Your task to perform on an android device: turn on data saver in the chrome app Image 0: 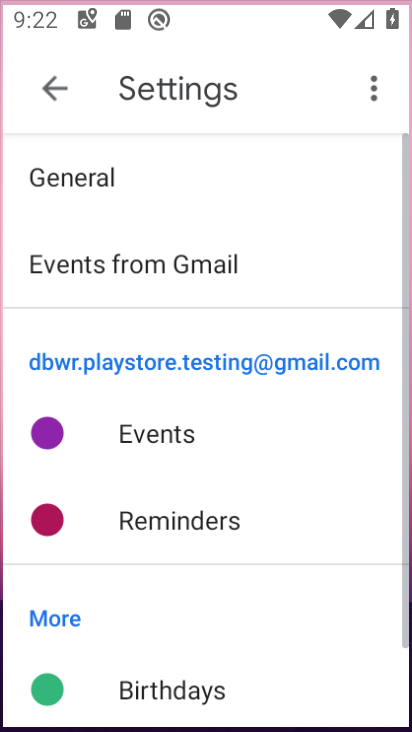
Step 0: drag from (215, 597) to (270, 221)
Your task to perform on an android device: turn on data saver in the chrome app Image 1: 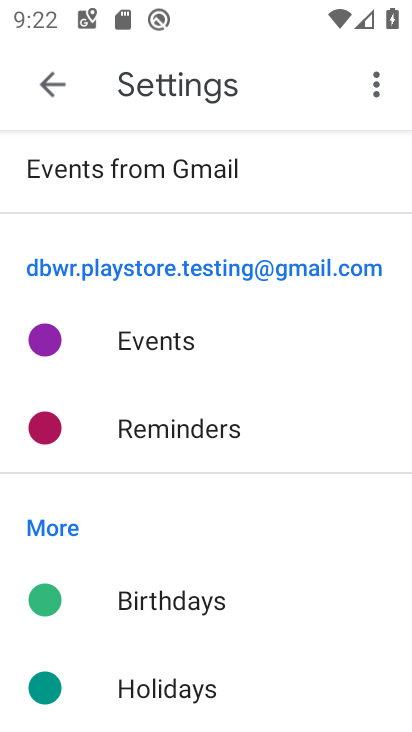
Step 1: press home button
Your task to perform on an android device: turn on data saver in the chrome app Image 2: 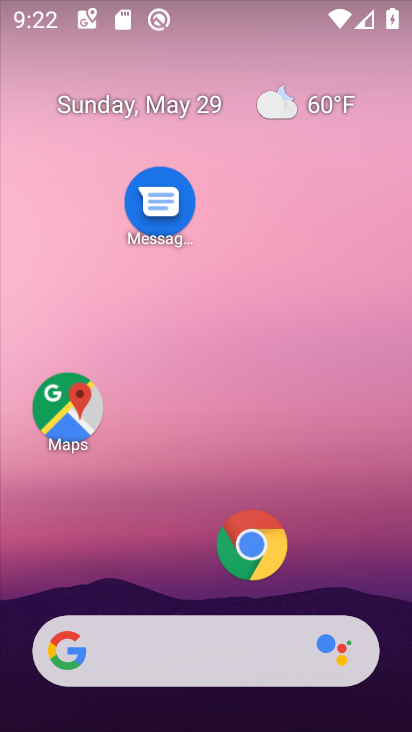
Step 2: click (245, 547)
Your task to perform on an android device: turn on data saver in the chrome app Image 3: 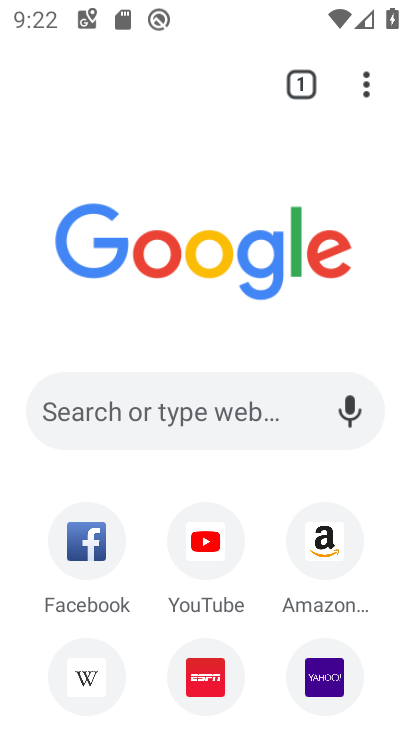
Step 3: click (368, 81)
Your task to perform on an android device: turn on data saver in the chrome app Image 4: 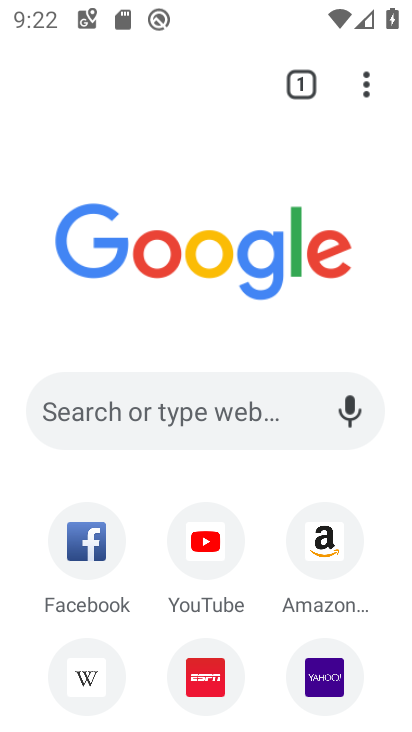
Step 4: click (370, 86)
Your task to perform on an android device: turn on data saver in the chrome app Image 5: 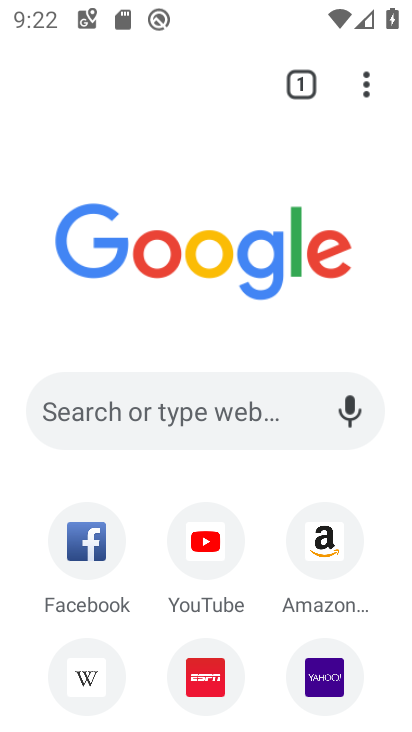
Step 5: click (375, 90)
Your task to perform on an android device: turn on data saver in the chrome app Image 6: 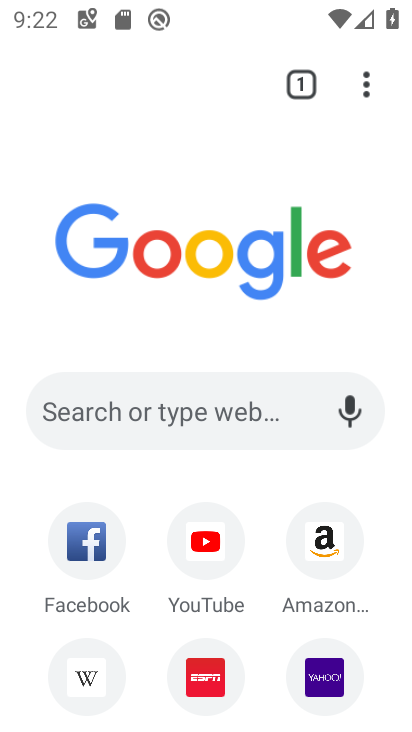
Step 6: click (360, 74)
Your task to perform on an android device: turn on data saver in the chrome app Image 7: 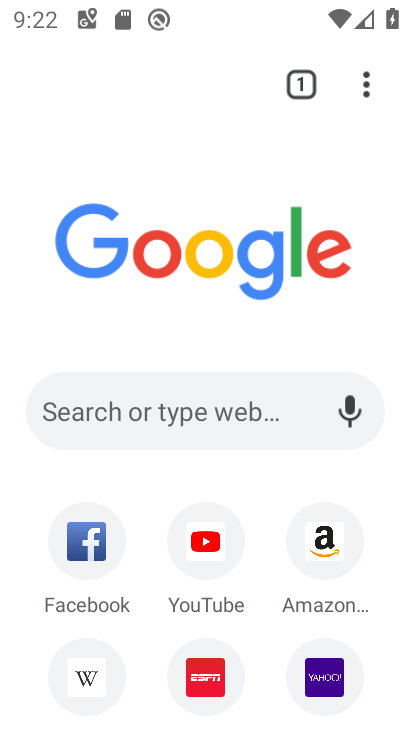
Step 7: click (364, 77)
Your task to perform on an android device: turn on data saver in the chrome app Image 8: 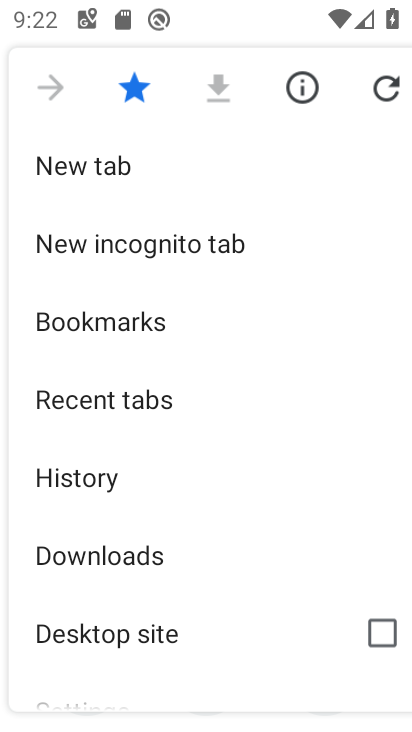
Step 8: click (369, 81)
Your task to perform on an android device: turn on data saver in the chrome app Image 9: 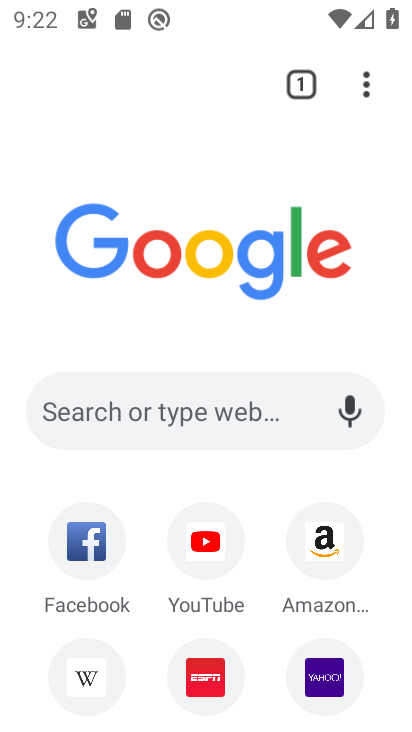
Step 9: click (366, 87)
Your task to perform on an android device: turn on data saver in the chrome app Image 10: 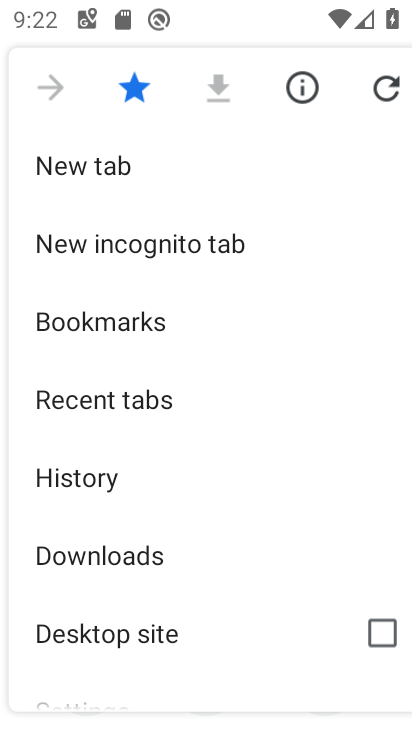
Step 10: drag from (134, 631) to (205, 157)
Your task to perform on an android device: turn on data saver in the chrome app Image 11: 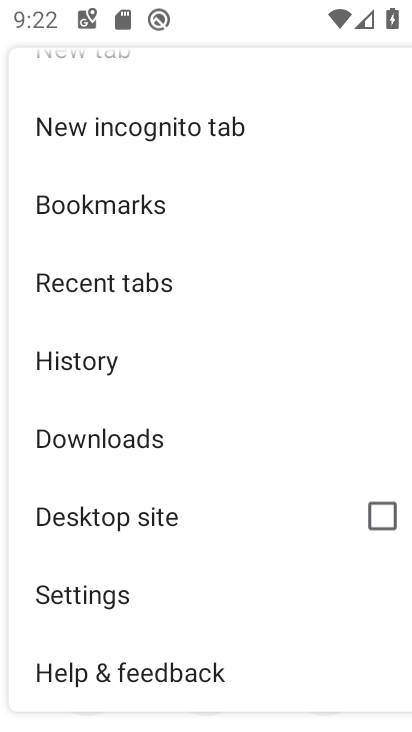
Step 11: click (92, 589)
Your task to perform on an android device: turn on data saver in the chrome app Image 12: 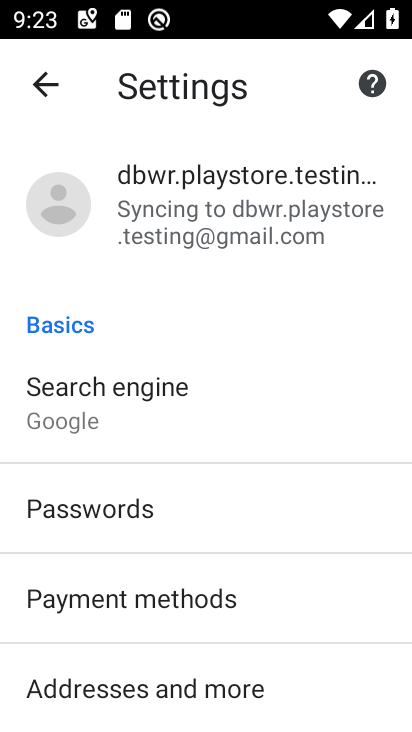
Step 12: drag from (127, 612) to (156, 382)
Your task to perform on an android device: turn on data saver in the chrome app Image 13: 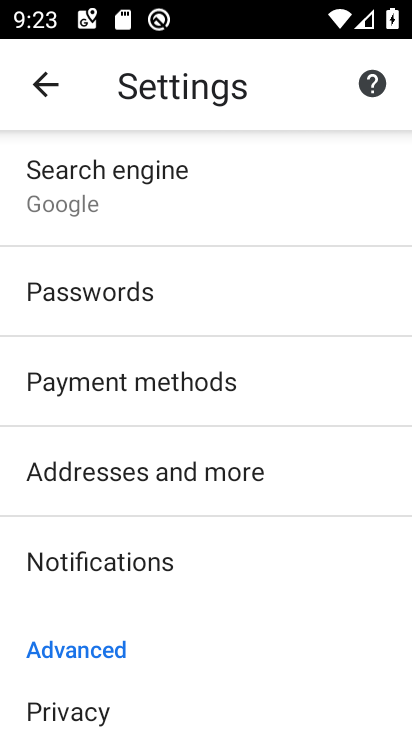
Step 13: drag from (159, 696) to (236, 251)
Your task to perform on an android device: turn on data saver in the chrome app Image 14: 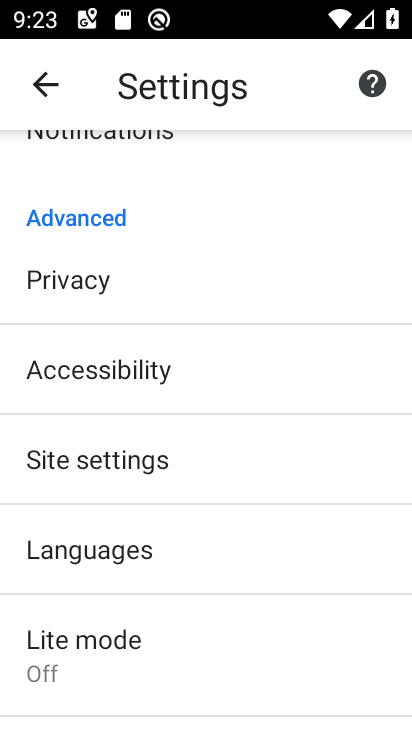
Step 14: click (110, 647)
Your task to perform on an android device: turn on data saver in the chrome app Image 15: 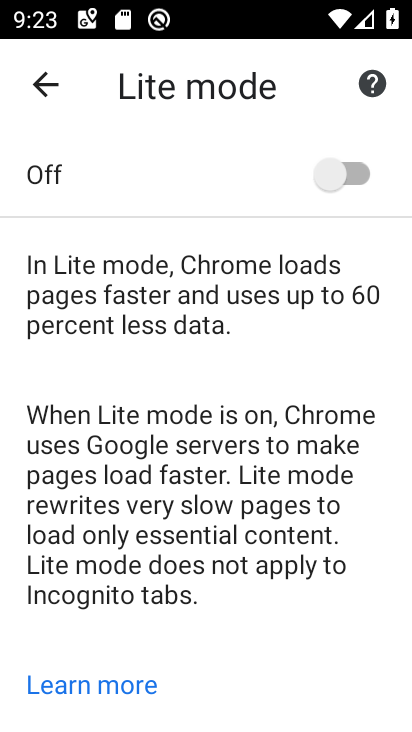
Step 15: click (349, 175)
Your task to perform on an android device: turn on data saver in the chrome app Image 16: 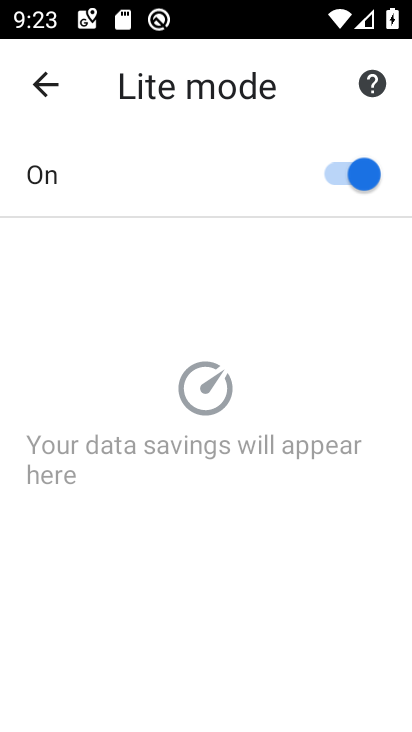
Step 16: task complete